Your task to perform on an android device: Search for seafood restaurants on Google Maps Image 0: 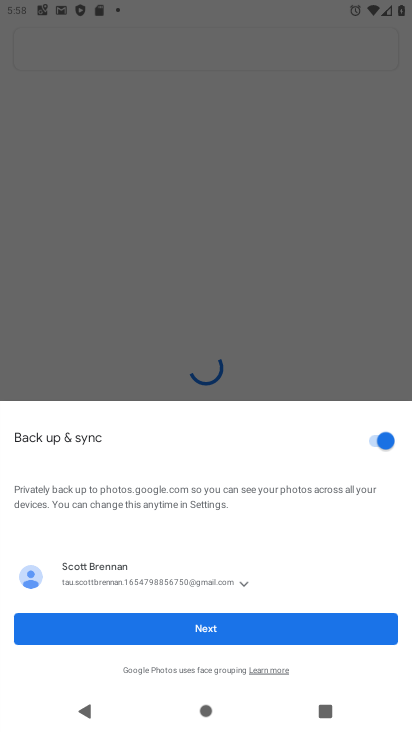
Step 0: click (193, 657)
Your task to perform on an android device: Search for seafood restaurants on Google Maps Image 1: 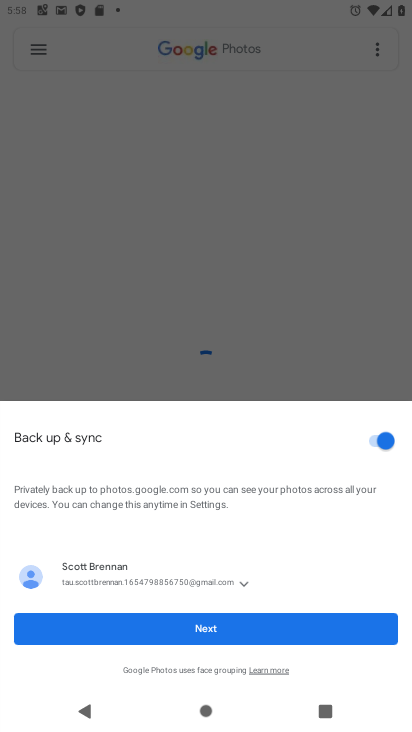
Step 1: press home button
Your task to perform on an android device: Search for seafood restaurants on Google Maps Image 2: 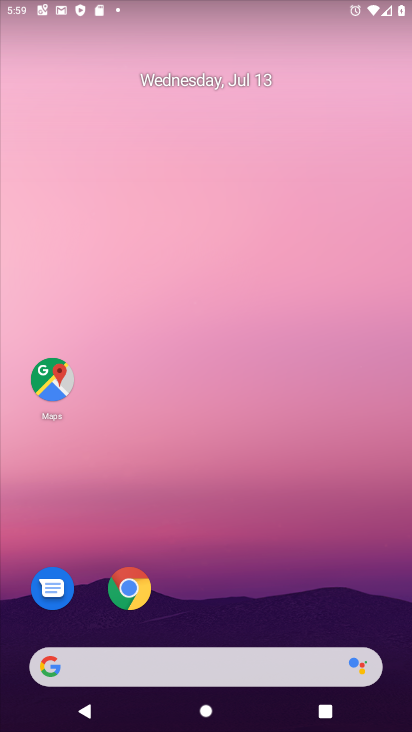
Step 2: click (48, 382)
Your task to perform on an android device: Search for seafood restaurants on Google Maps Image 3: 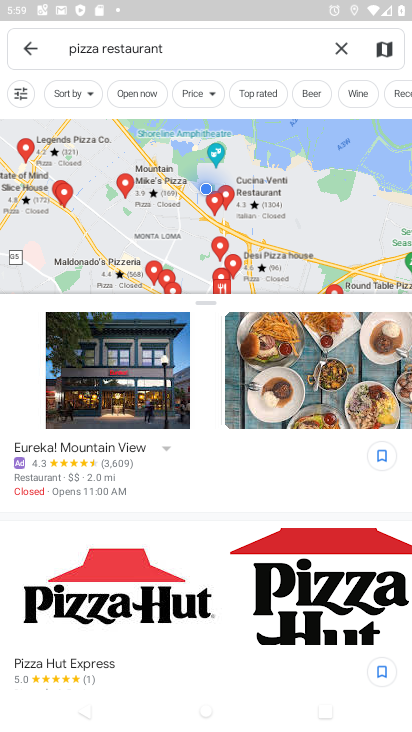
Step 3: click (27, 48)
Your task to perform on an android device: Search for seafood restaurants on Google Maps Image 4: 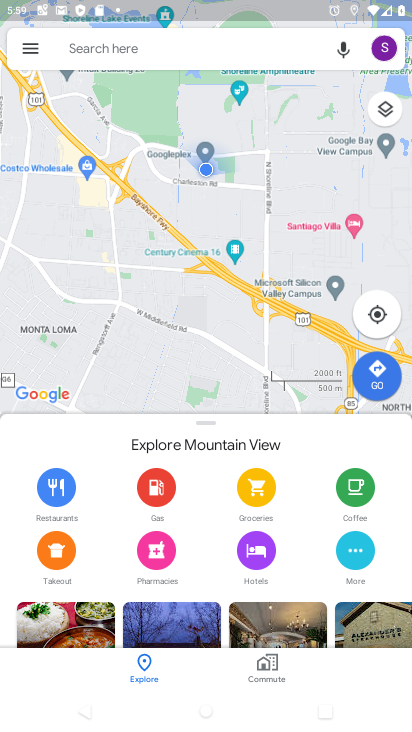
Step 4: click (230, 40)
Your task to perform on an android device: Search for seafood restaurants on Google Maps Image 5: 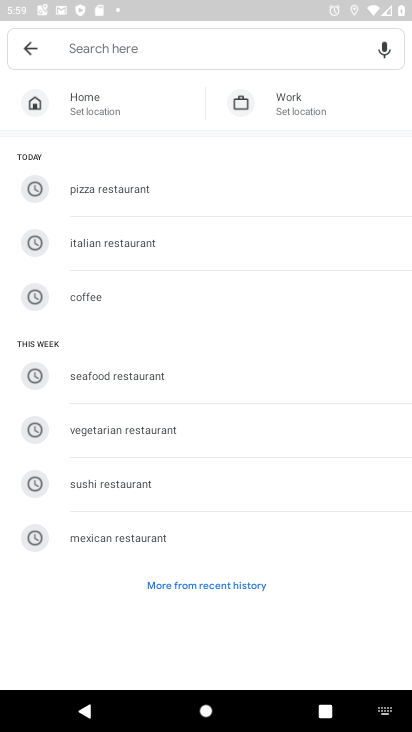
Step 5: click (113, 382)
Your task to perform on an android device: Search for seafood restaurants on Google Maps Image 6: 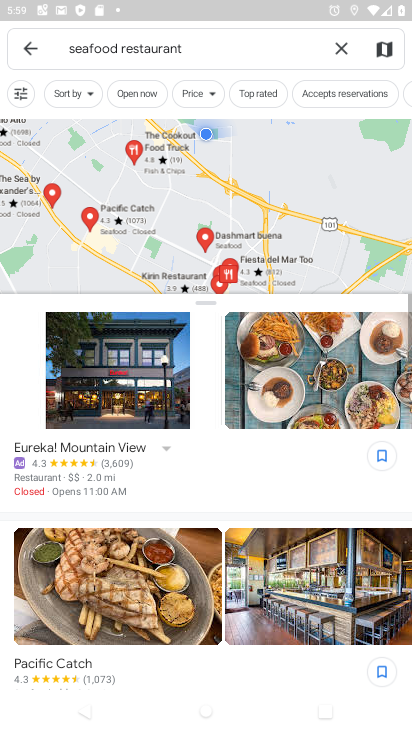
Step 6: task complete